Your task to perform on an android device: Open calendar and show me the first week of next month Image 0: 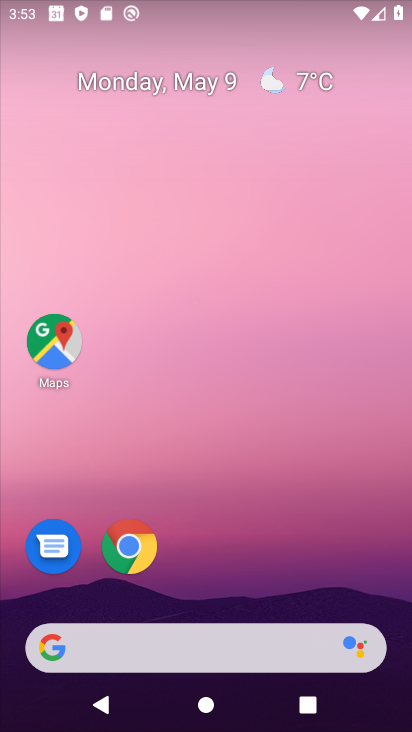
Step 0: drag from (223, 619) to (240, 375)
Your task to perform on an android device: Open calendar and show me the first week of next month Image 1: 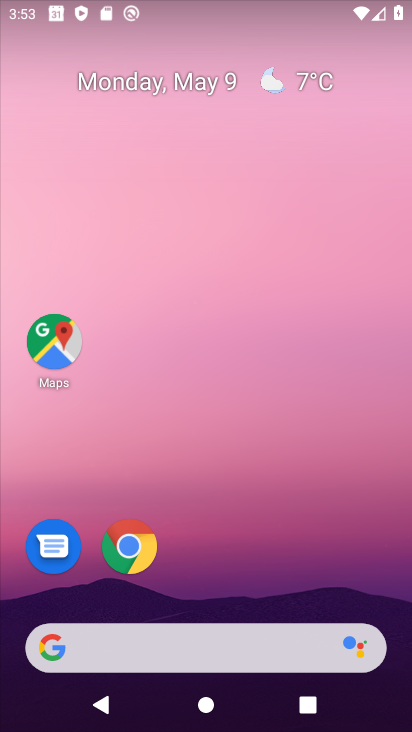
Step 1: drag from (185, 564) to (226, 234)
Your task to perform on an android device: Open calendar and show me the first week of next month Image 2: 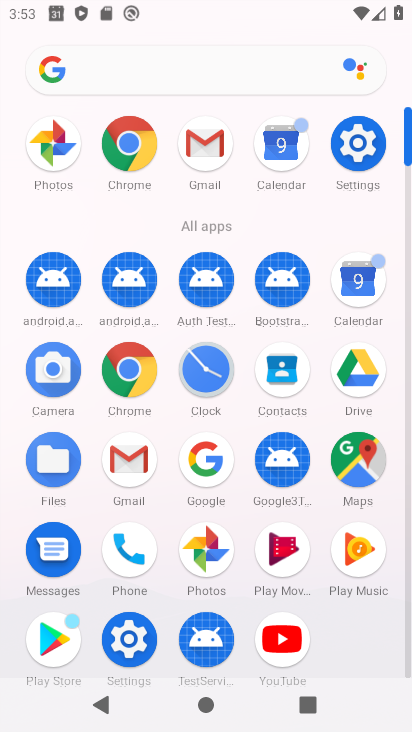
Step 2: click (367, 283)
Your task to perform on an android device: Open calendar and show me the first week of next month Image 3: 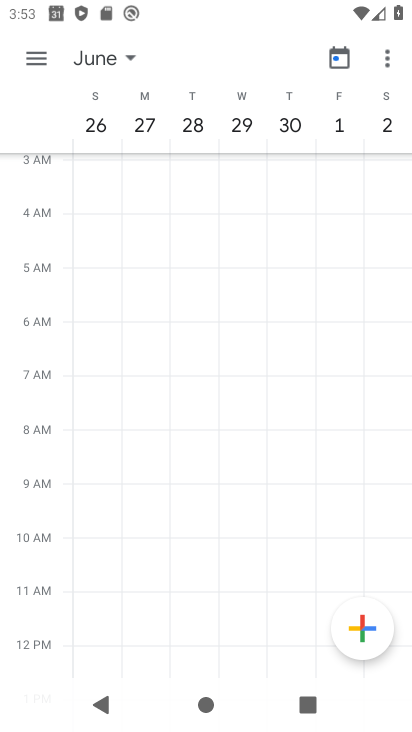
Step 3: click (93, 61)
Your task to perform on an android device: Open calendar and show me the first week of next month Image 4: 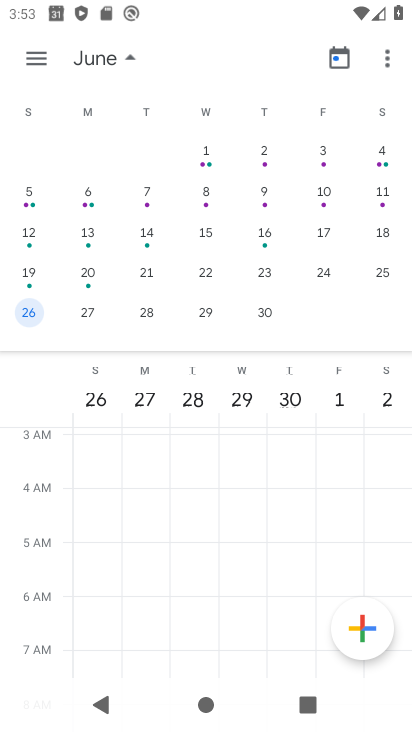
Step 4: click (49, 152)
Your task to perform on an android device: Open calendar and show me the first week of next month Image 5: 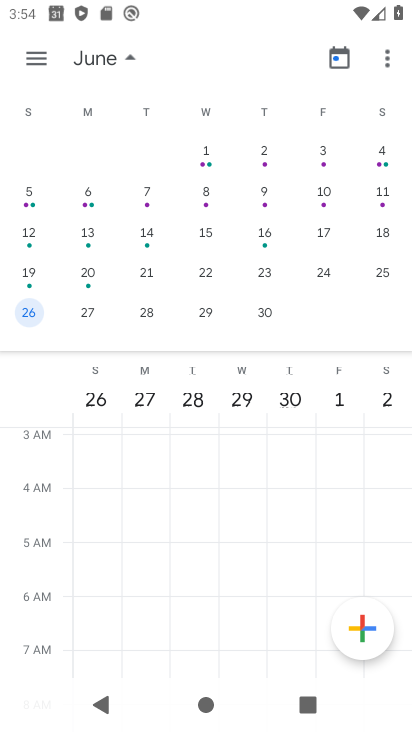
Step 5: click (28, 189)
Your task to perform on an android device: Open calendar and show me the first week of next month Image 6: 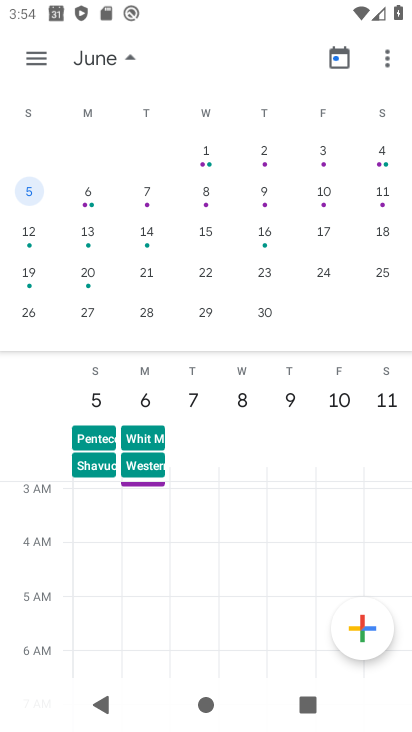
Step 6: click (129, 54)
Your task to perform on an android device: Open calendar and show me the first week of next month Image 7: 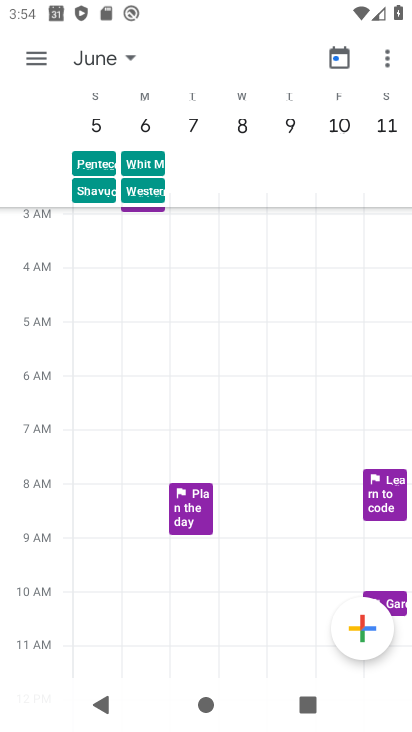
Step 7: task complete